Your task to perform on an android device: manage bookmarks in the chrome app Image 0: 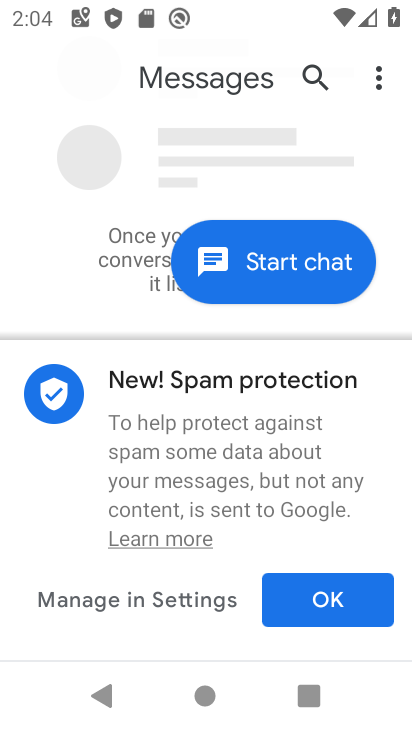
Step 0: press back button
Your task to perform on an android device: manage bookmarks in the chrome app Image 1: 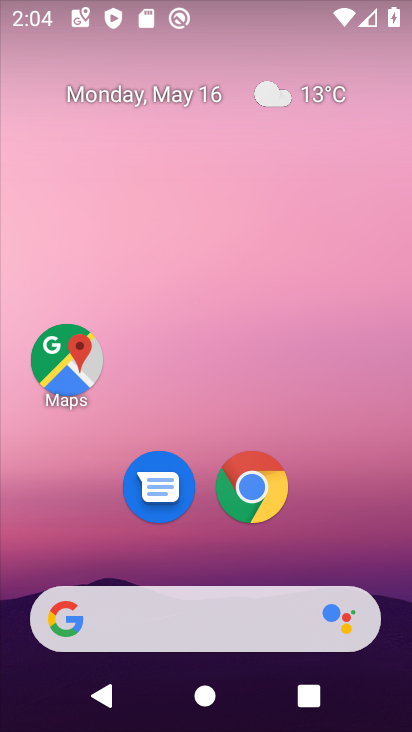
Step 1: drag from (334, 530) to (262, 6)
Your task to perform on an android device: manage bookmarks in the chrome app Image 2: 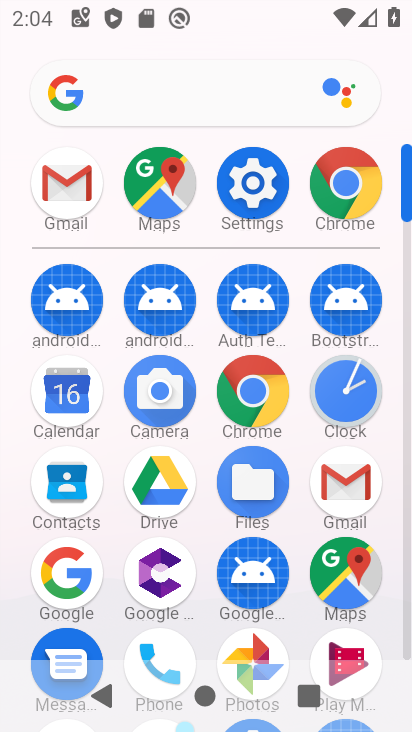
Step 2: click (346, 194)
Your task to perform on an android device: manage bookmarks in the chrome app Image 3: 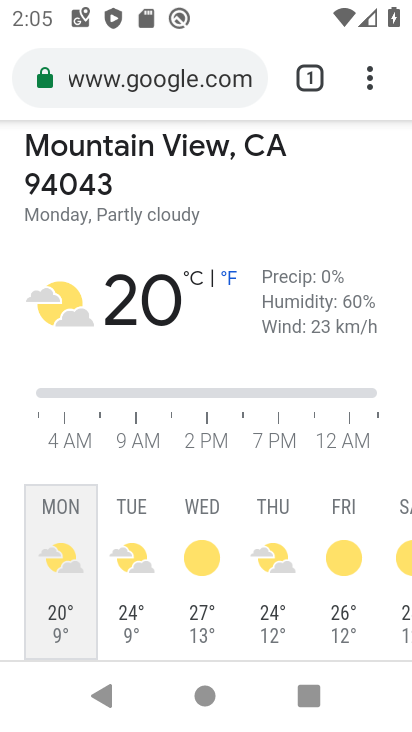
Step 3: task complete